Your task to perform on an android device: toggle show notifications on the lock screen Image 0: 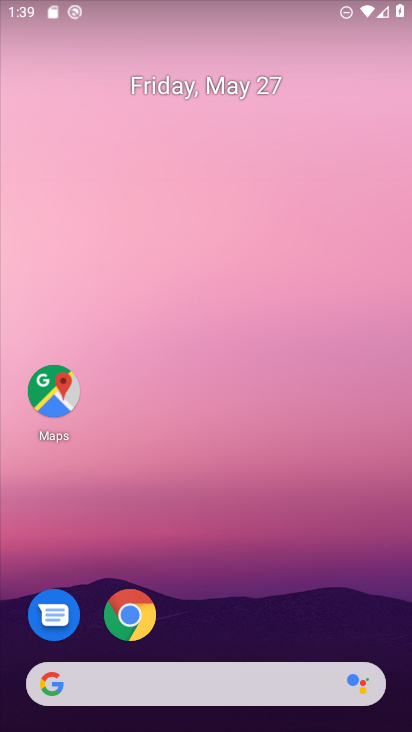
Step 0: drag from (302, 608) to (292, 208)
Your task to perform on an android device: toggle show notifications on the lock screen Image 1: 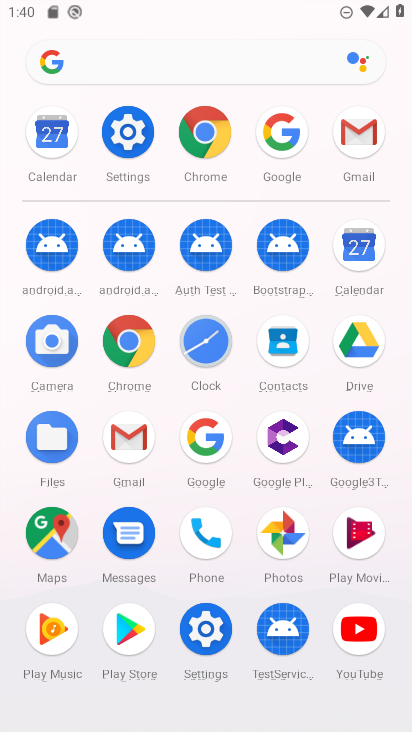
Step 1: click (211, 638)
Your task to perform on an android device: toggle show notifications on the lock screen Image 2: 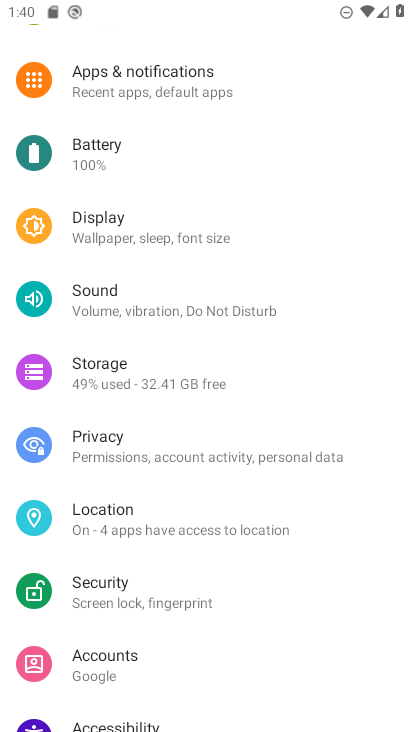
Step 2: drag from (231, 179) to (219, 538)
Your task to perform on an android device: toggle show notifications on the lock screen Image 3: 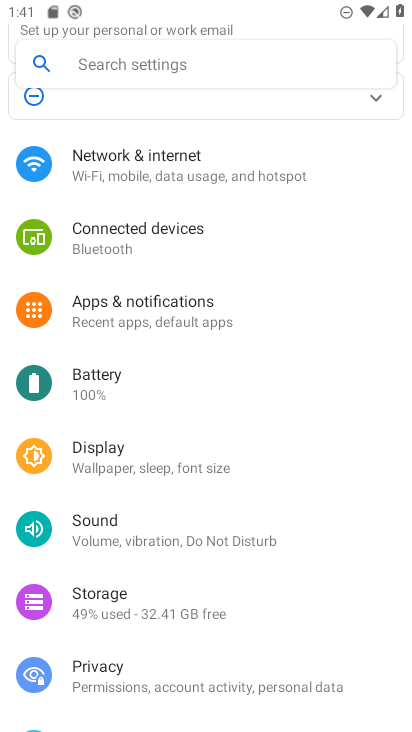
Step 3: click (235, 309)
Your task to perform on an android device: toggle show notifications on the lock screen Image 4: 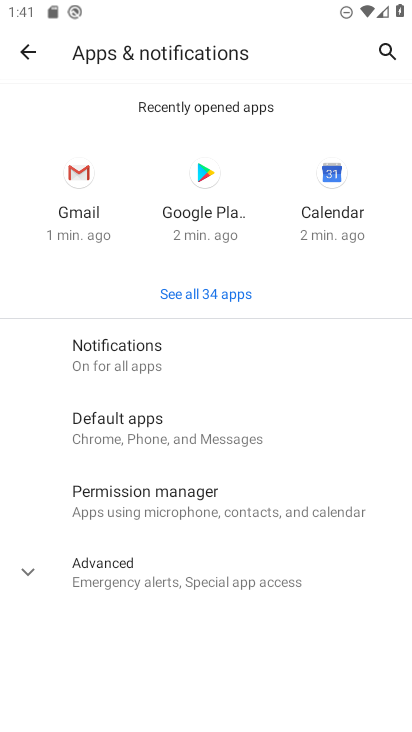
Step 4: click (195, 365)
Your task to perform on an android device: toggle show notifications on the lock screen Image 5: 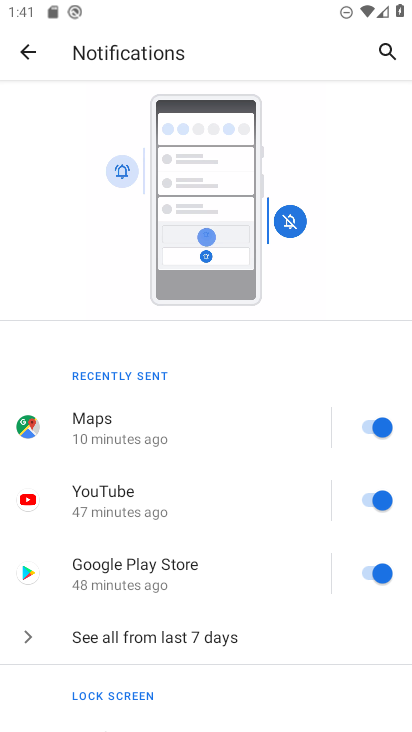
Step 5: drag from (224, 566) to (198, 167)
Your task to perform on an android device: toggle show notifications on the lock screen Image 6: 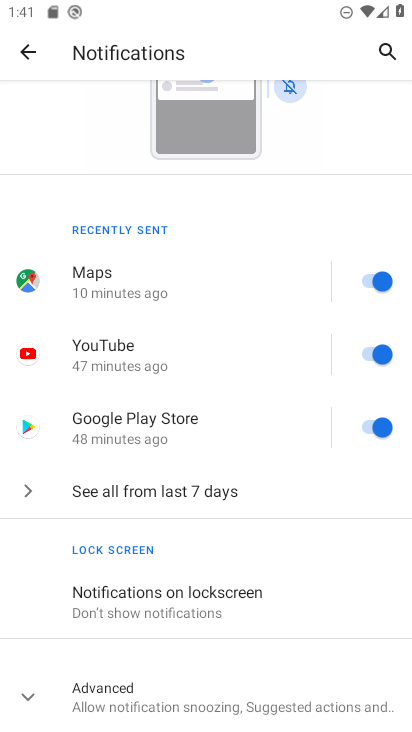
Step 6: click (197, 607)
Your task to perform on an android device: toggle show notifications on the lock screen Image 7: 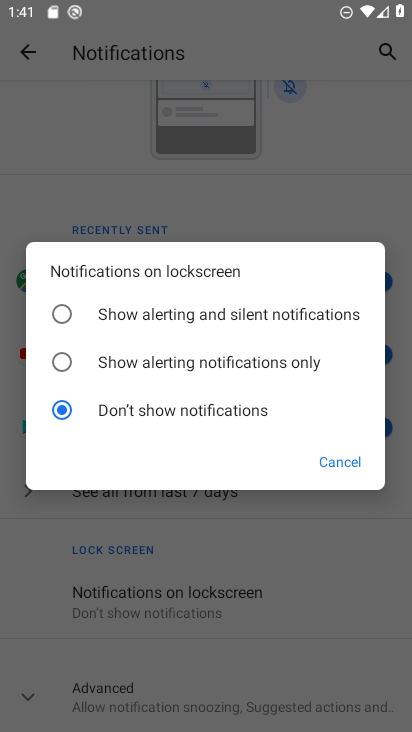
Step 7: click (191, 298)
Your task to perform on an android device: toggle show notifications on the lock screen Image 8: 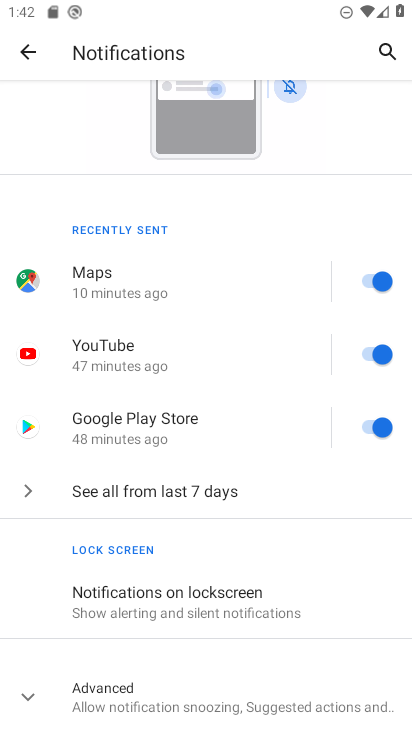
Step 8: task complete